Your task to perform on an android device: Do I have any events today? Image 0: 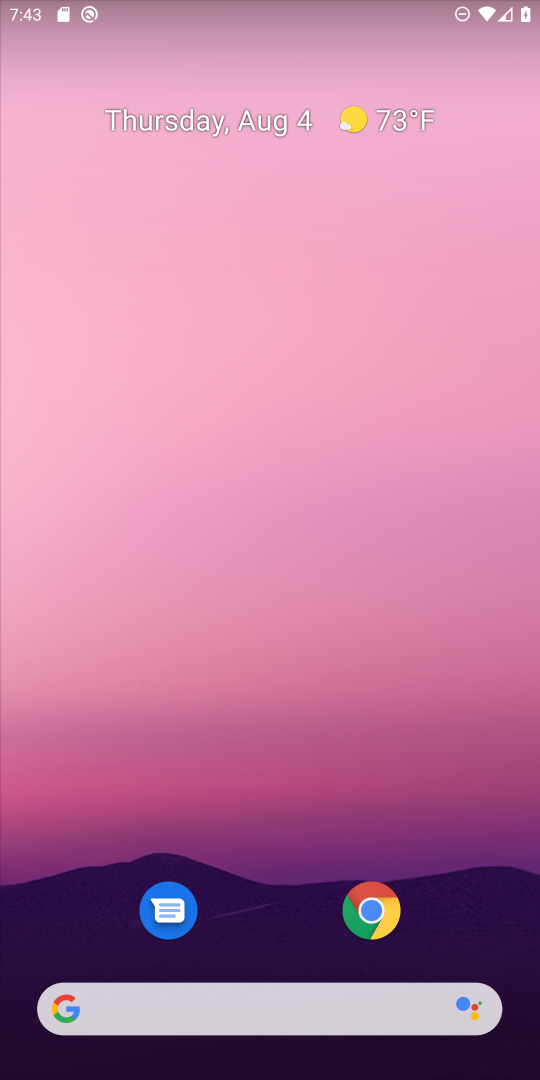
Step 0: drag from (430, 842) to (348, 84)
Your task to perform on an android device: Do I have any events today? Image 1: 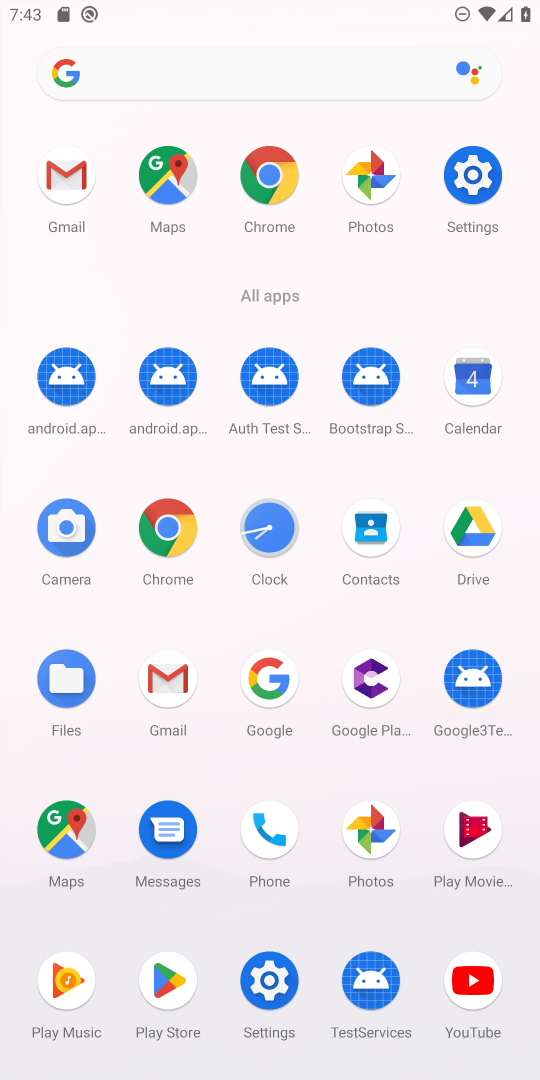
Step 1: click (471, 378)
Your task to perform on an android device: Do I have any events today? Image 2: 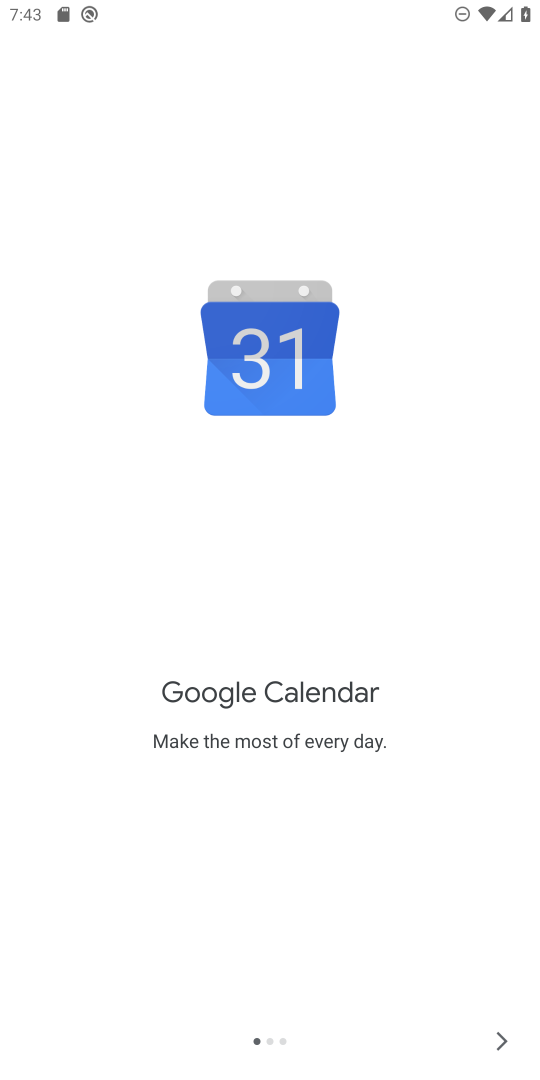
Step 2: click (497, 1041)
Your task to perform on an android device: Do I have any events today? Image 3: 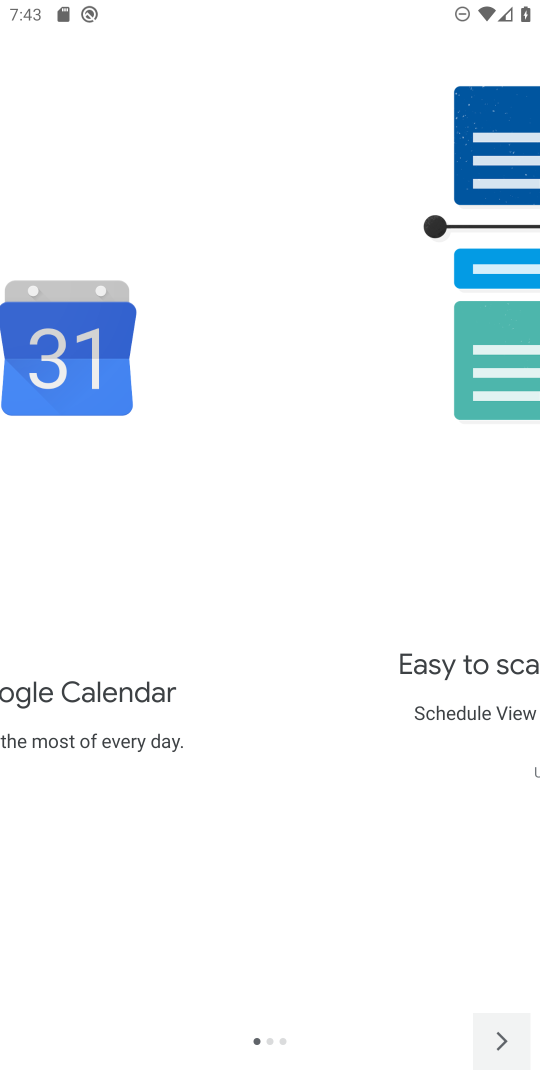
Step 3: click (497, 1041)
Your task to perform on an android device: Do I have any events today? Image 4: 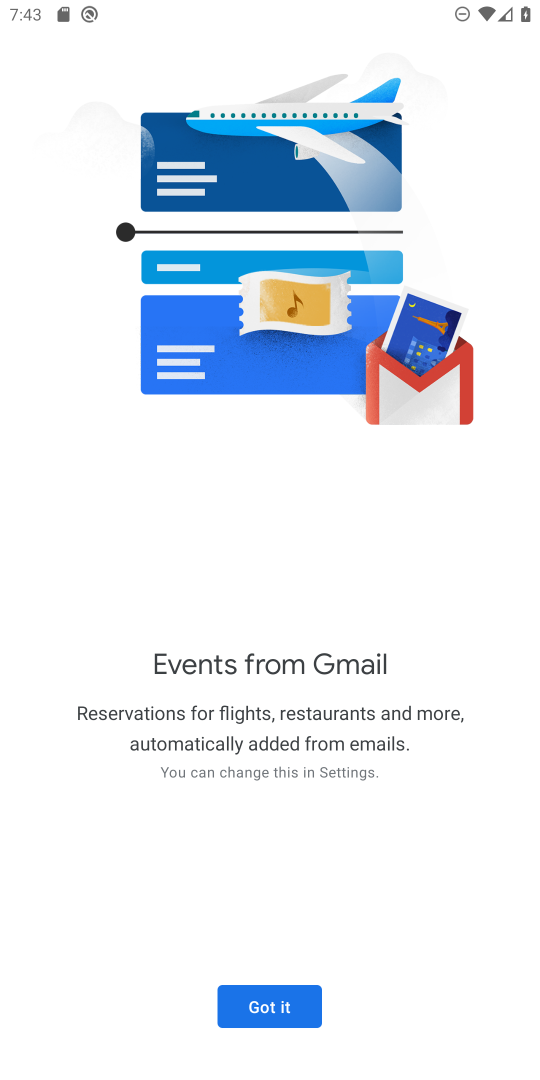
Step 4: click (228, 1017)
Your task to perform on an android device: Do I have any events today? Image 5: 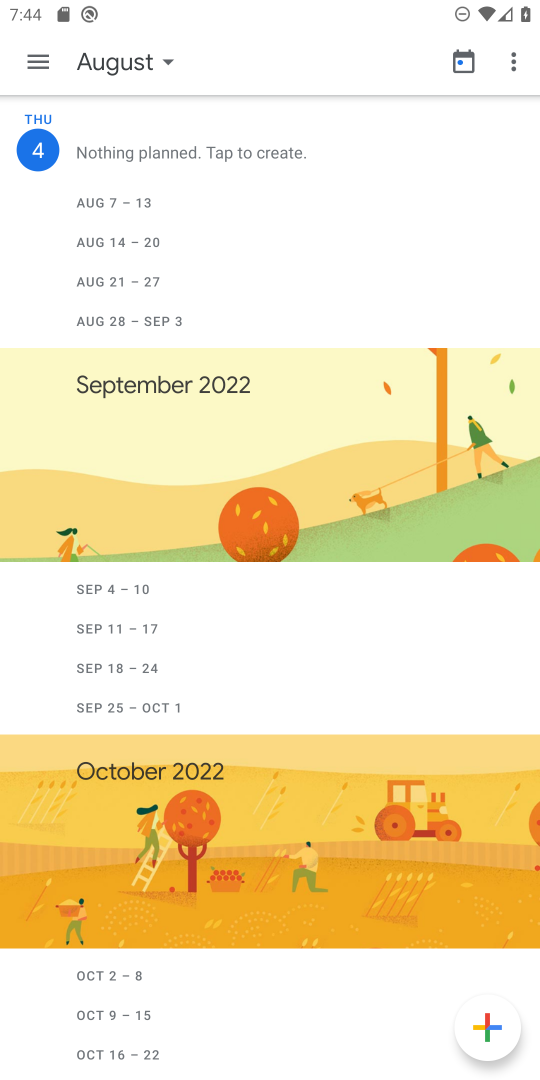
Step 5: click (132, 70)
Your task to perform on an android device: Do I have any events today? Image 6: 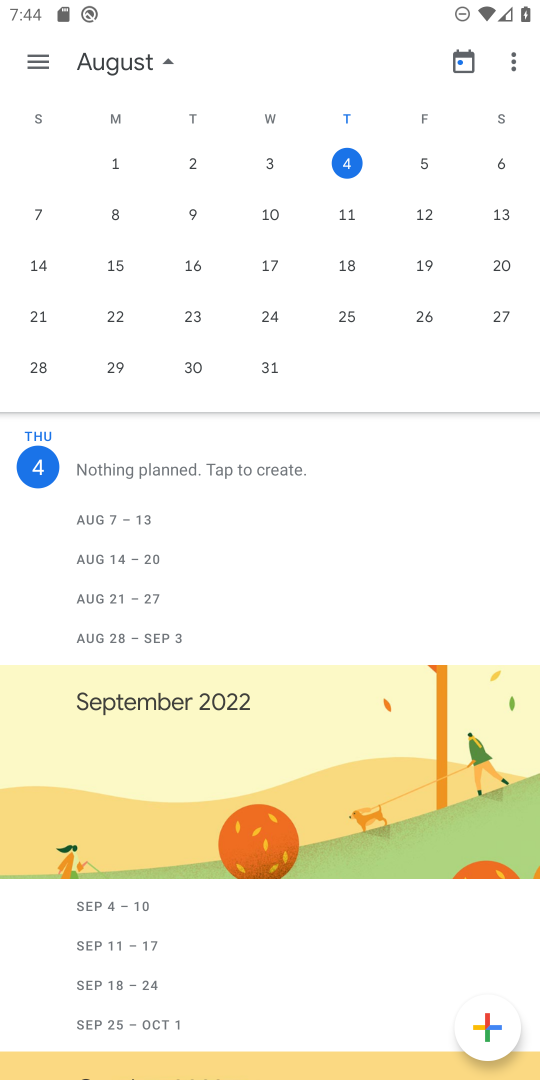
Step 6: click (413, 160)
Your task to perform on an android device: Do I have any events today? Image 7: 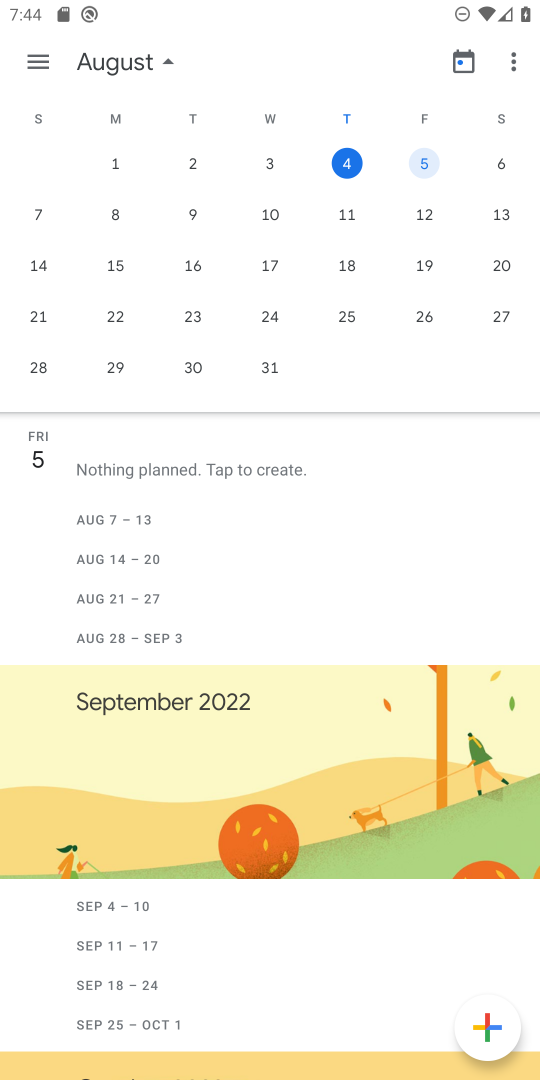
Step 7: click (413, 160)
Your task to perform on an android device: Do I have any events today? Image 8: 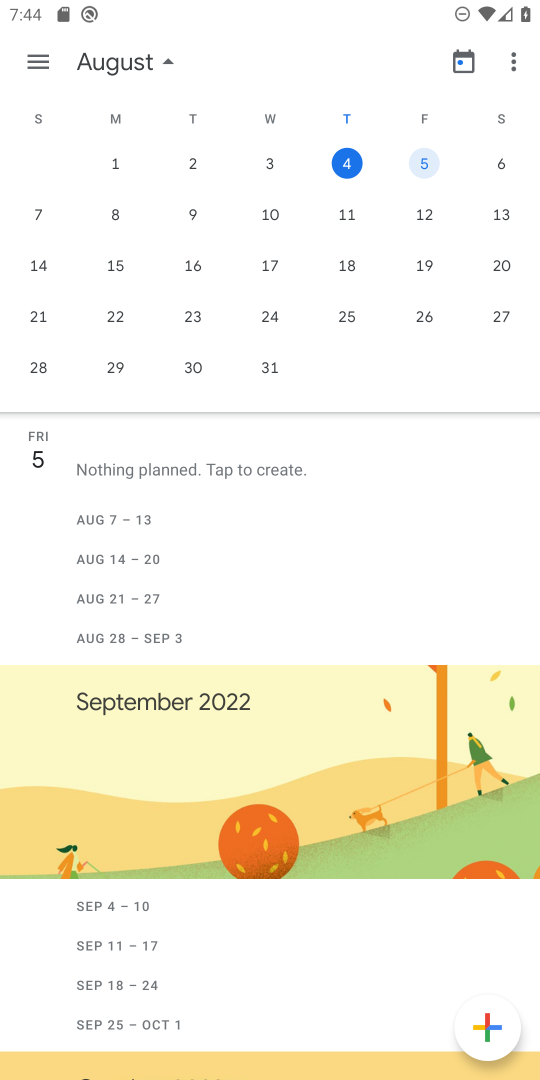
Step 8: click (38, 462)
Your task to perform on an android device: Do I have any events today? Image 9: 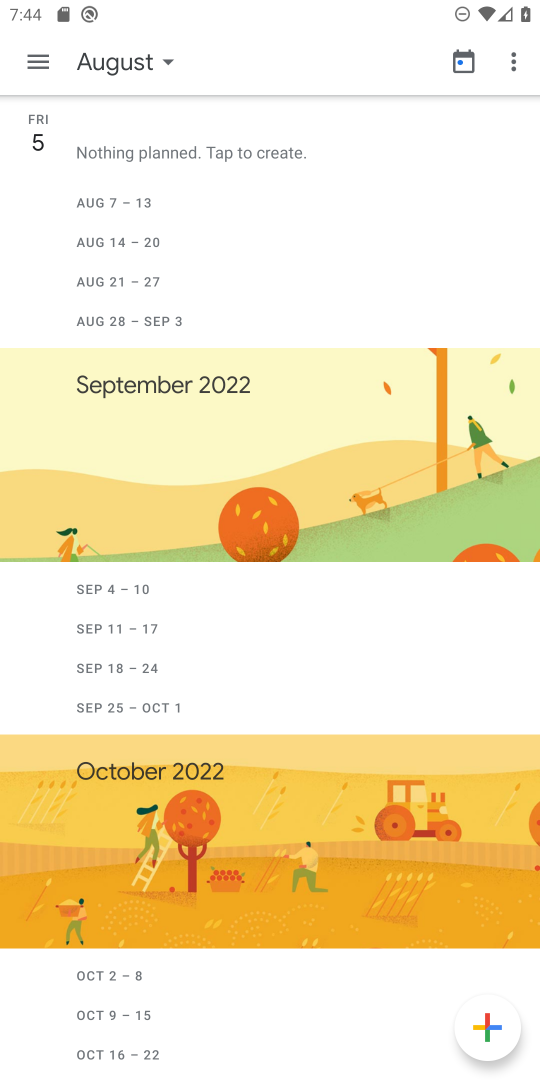
Step 9: task complete